Your task to perform on an android device: find which apps use the phone's location Image 0: 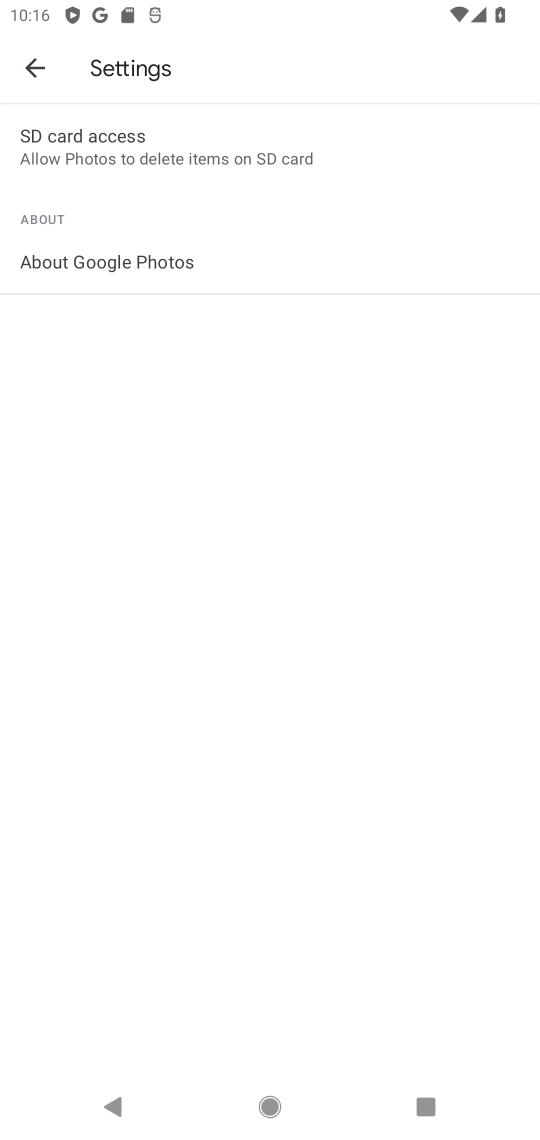
Step 0: press home button
Your task to perform on an android device: find which apps use the phone's location Image 1: 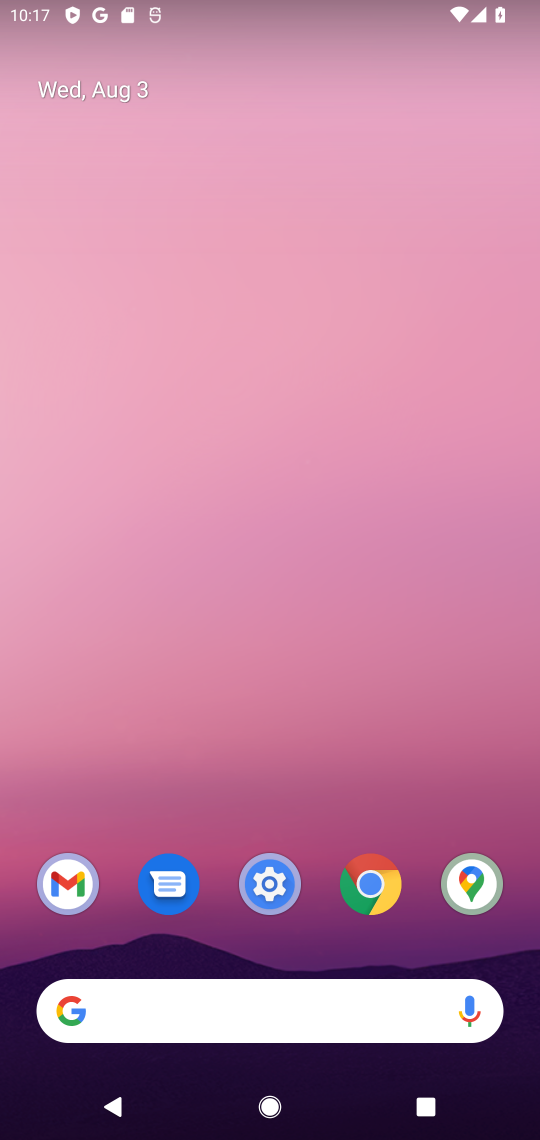
Step 1: click (264, 892)
Your task to perform on an android device: find which apps use the phone's location Image 2: 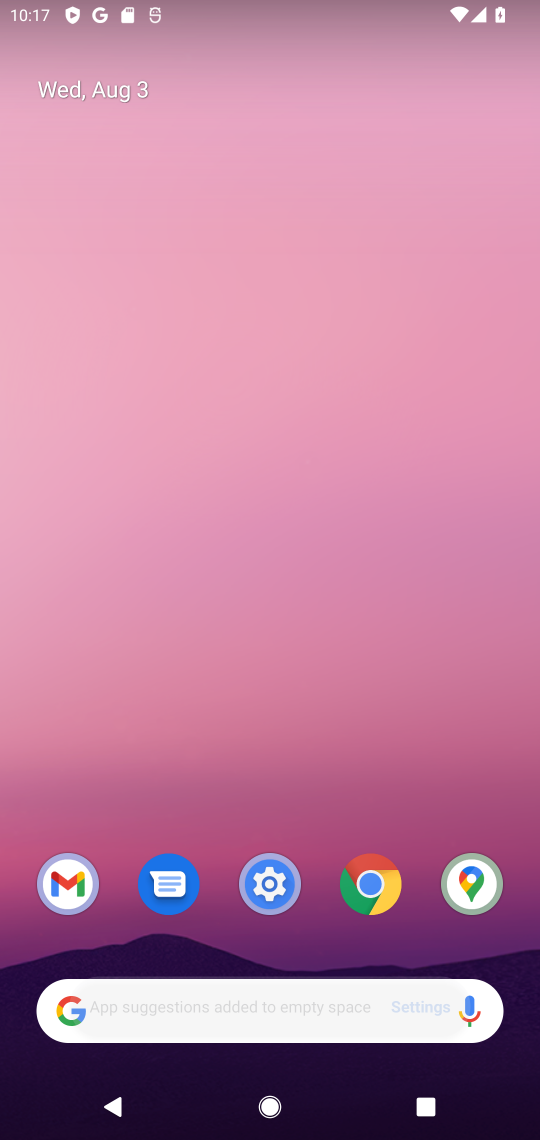
Step 2: click (272, 889)
Your task to perform on an android device: find which apps use the phone's location Image 3: 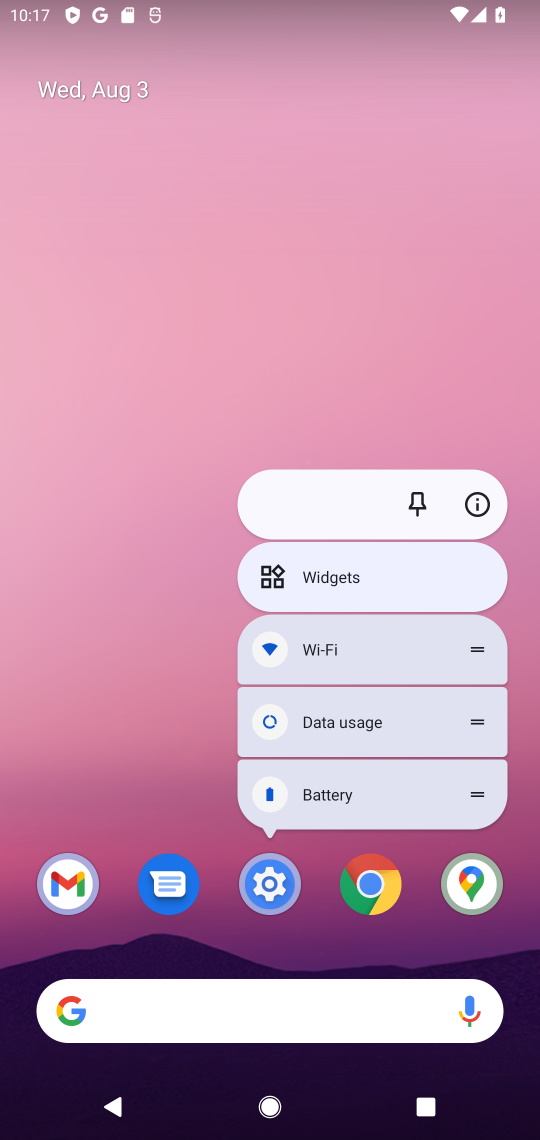
Step 3: click (272, 889)
Your task to perform on an android device: find which apps use the phone's location Image 4: 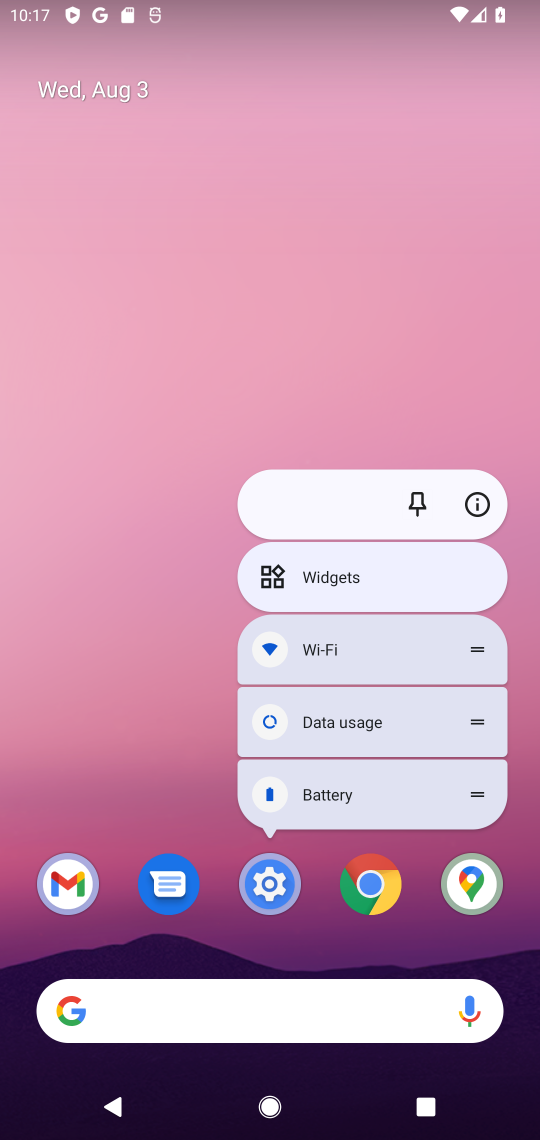
Step 4: click (269, 890)
Your task to perform on an android device: find which apps use the phone's location Image 5: 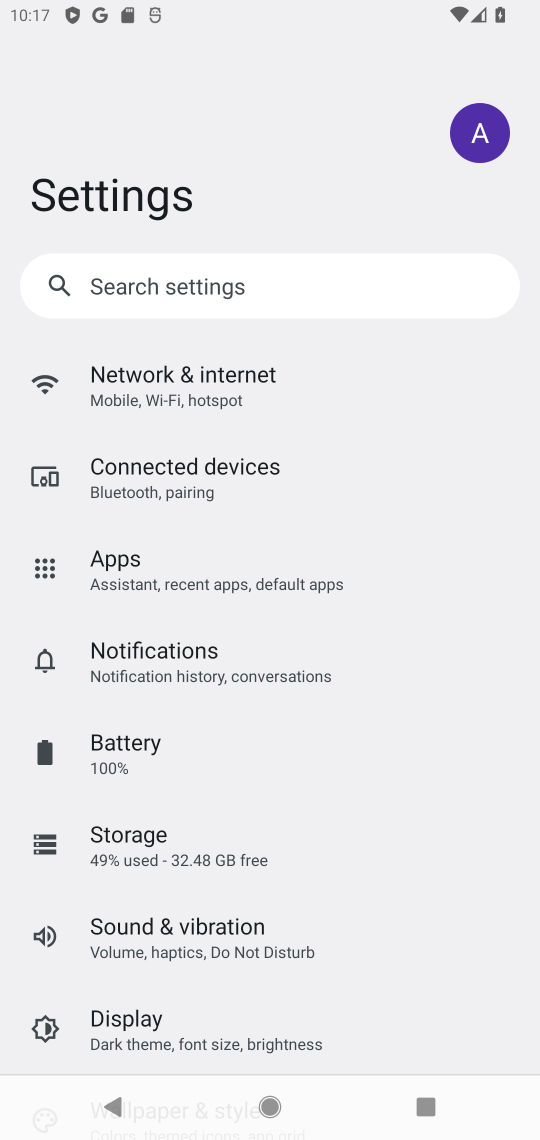
Step 5: drag from (379, 925) to (322, 289)
Your task to perform on an android device: find which apps use the phone's location Image 6: 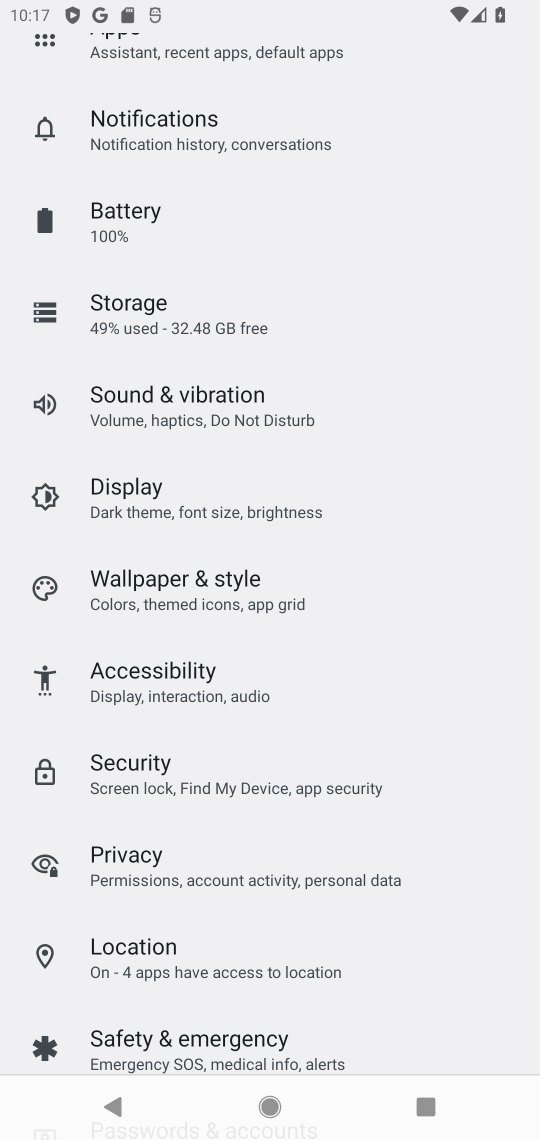
Step 6: click (135, 955)
Your task to perform on an android device: find which apps use the phone's location Image 7: 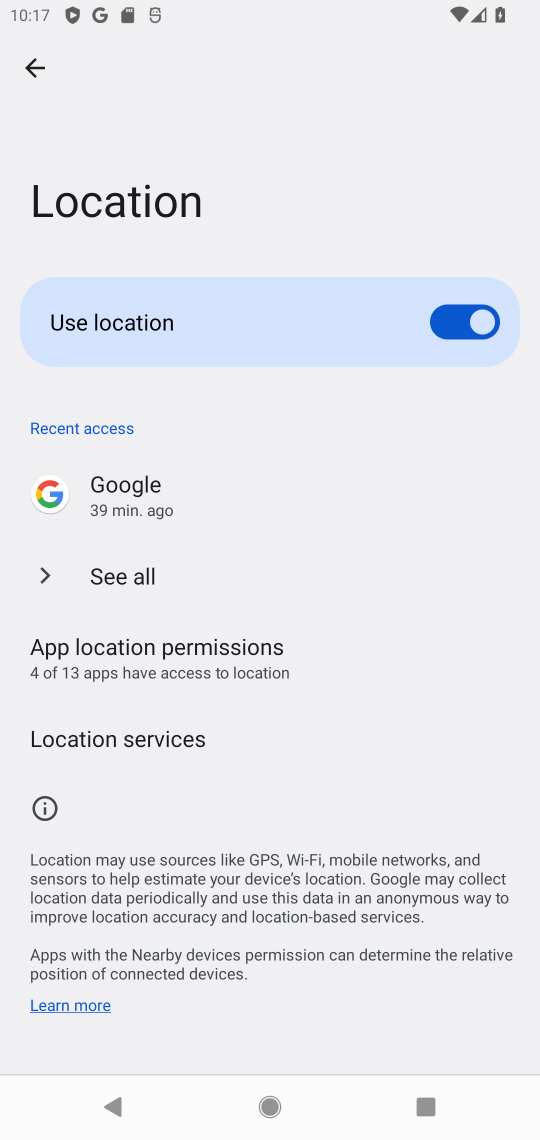
Step 7: click (140, 655)
Your task to perform on an android device: find which apps use the phone's location Image 8: 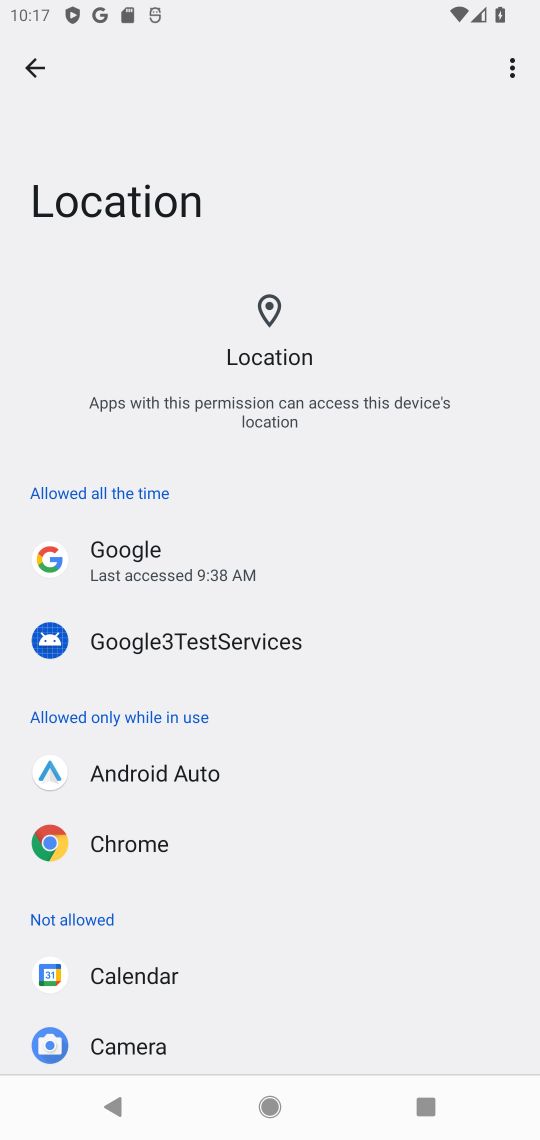
Step 8: task complete